Your task to perform on an android device: Open accessibility settings Image 0: 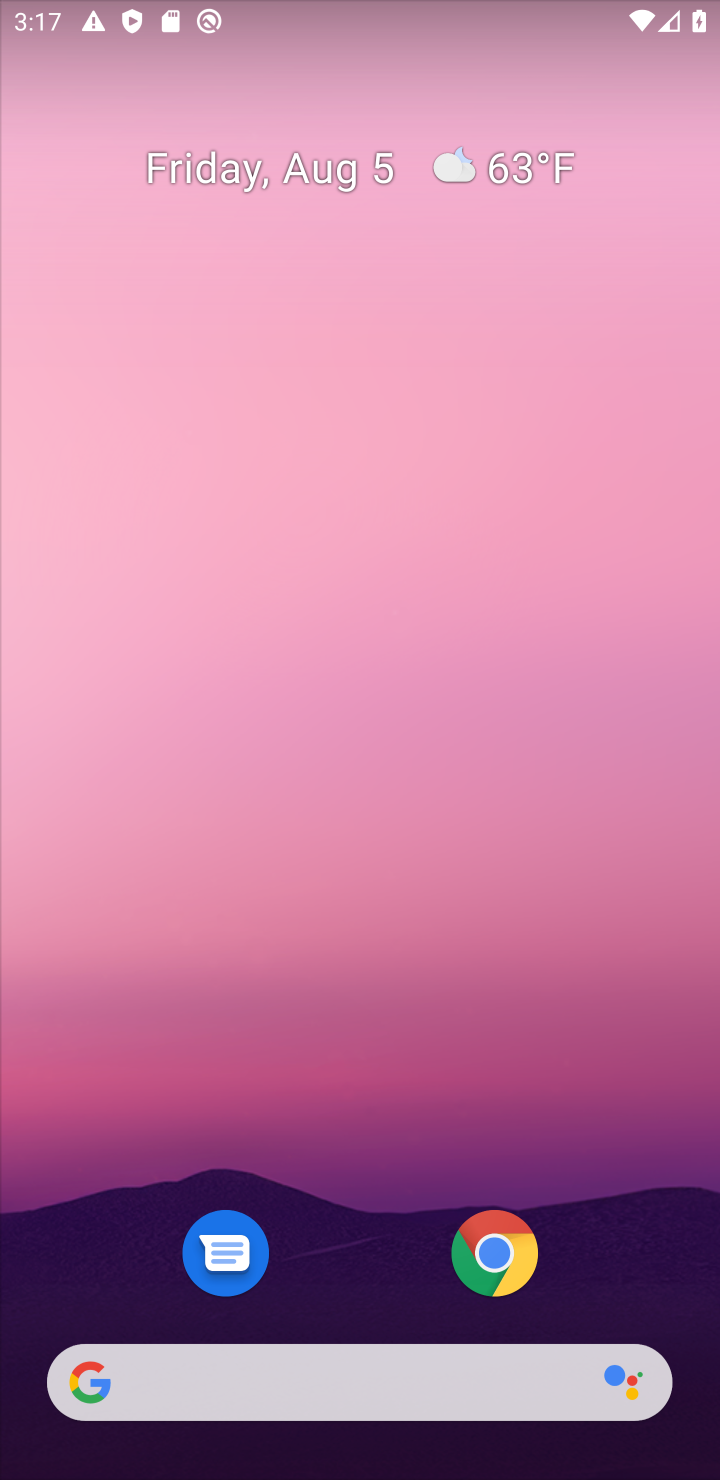
Step 0: drag from (351, 1116) to (399, 210)
Your task to perform on an android device: Open accessibility settings Image 1: 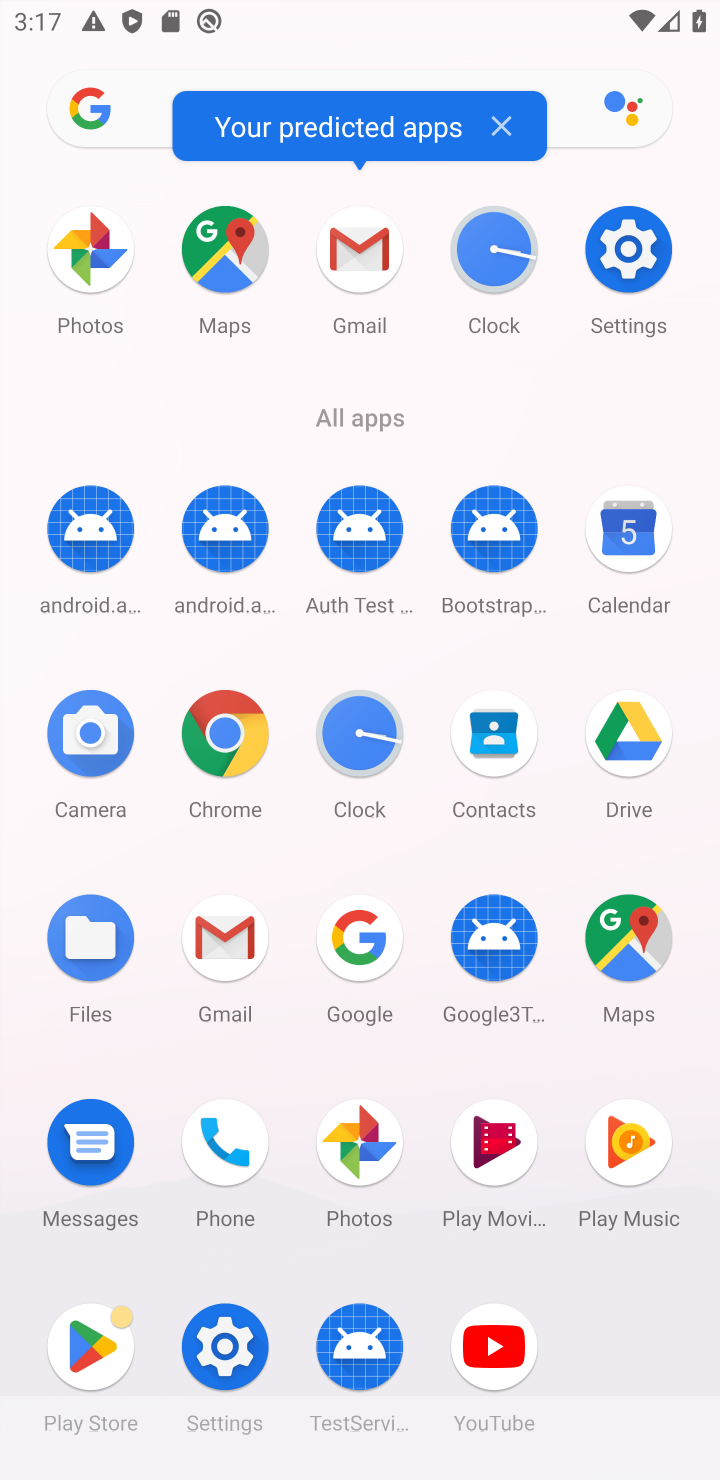
Step 1: click (224, 1335)
Your task to perform on an android device: Open accessibility settings Image 2: 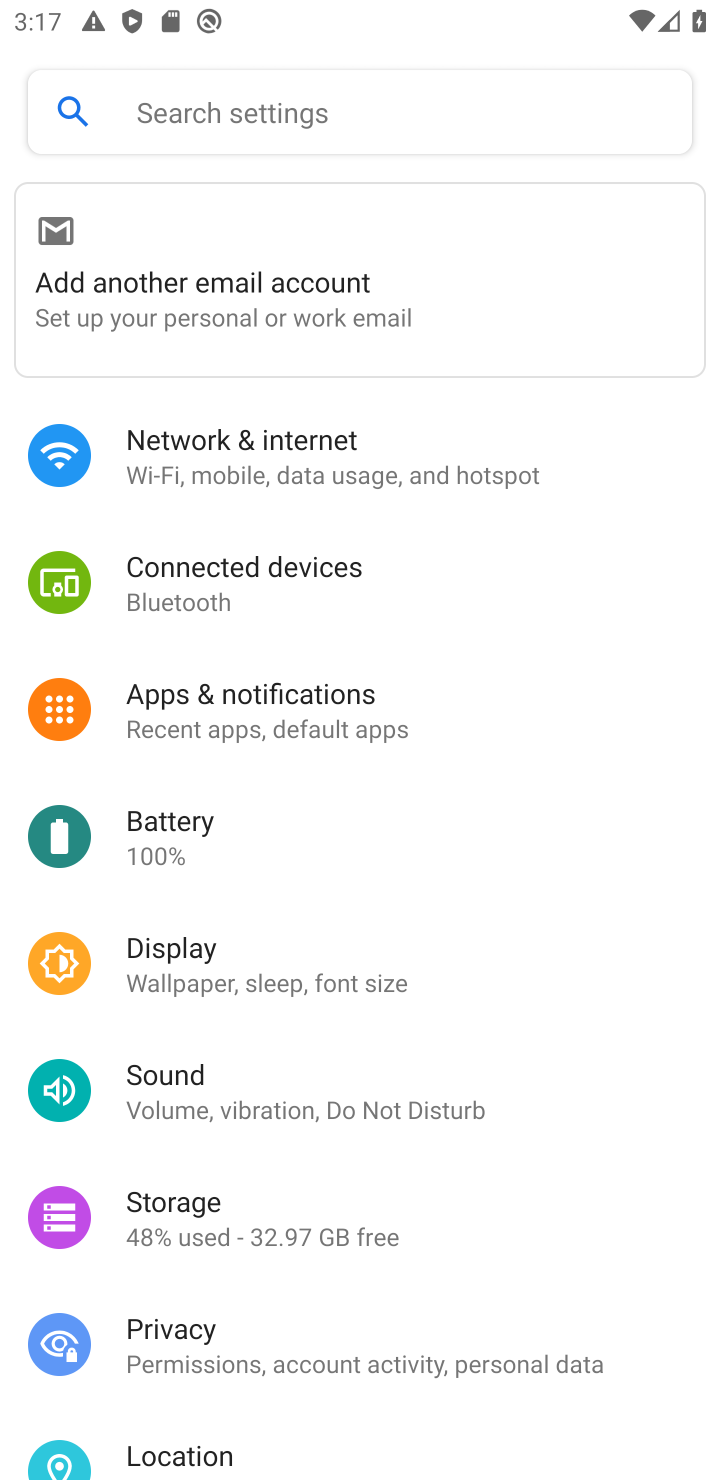
Step 2: drag from (260, 1300) to (291, 128)
Your task to perform on an android device: Open accessibility settings Image 3: 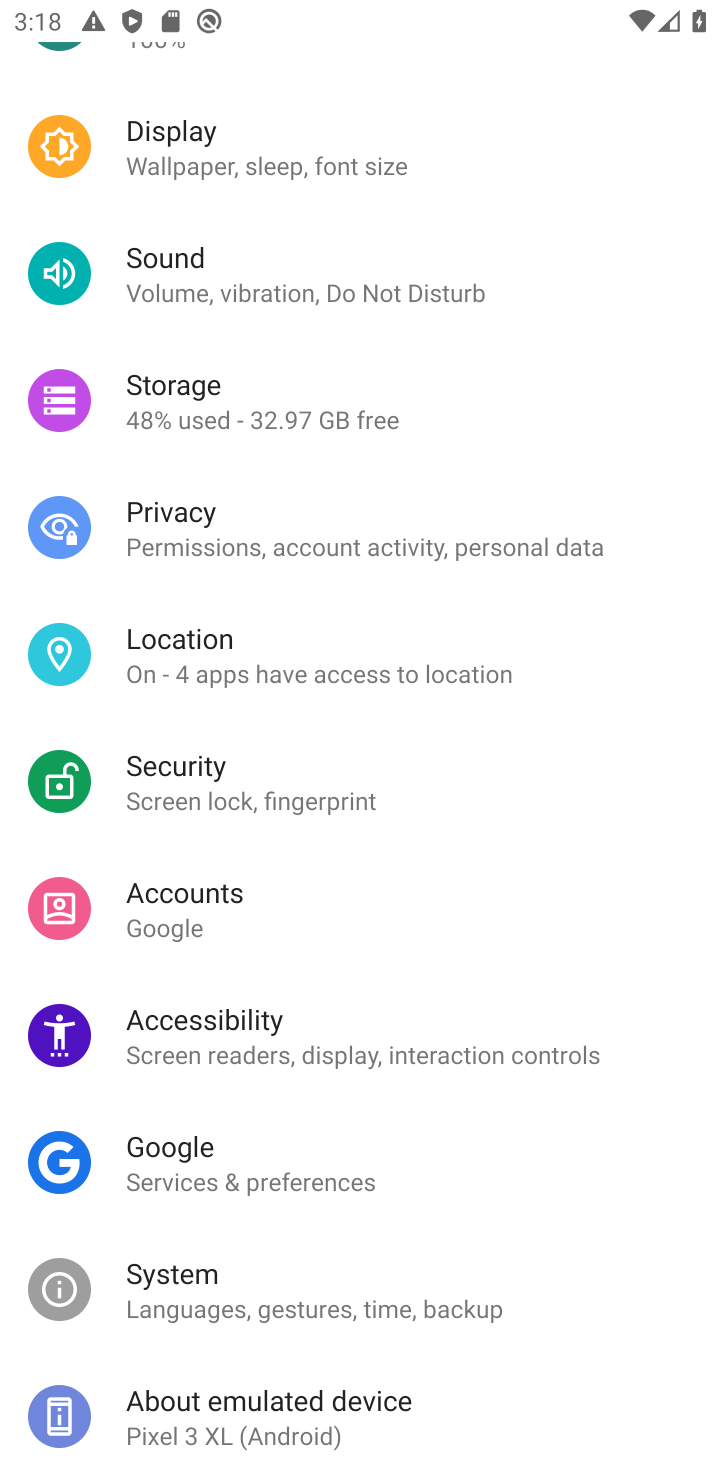
Step 3: click (247, 1027)
Your task to perform on an android device: Open accessibility settings Image 4: 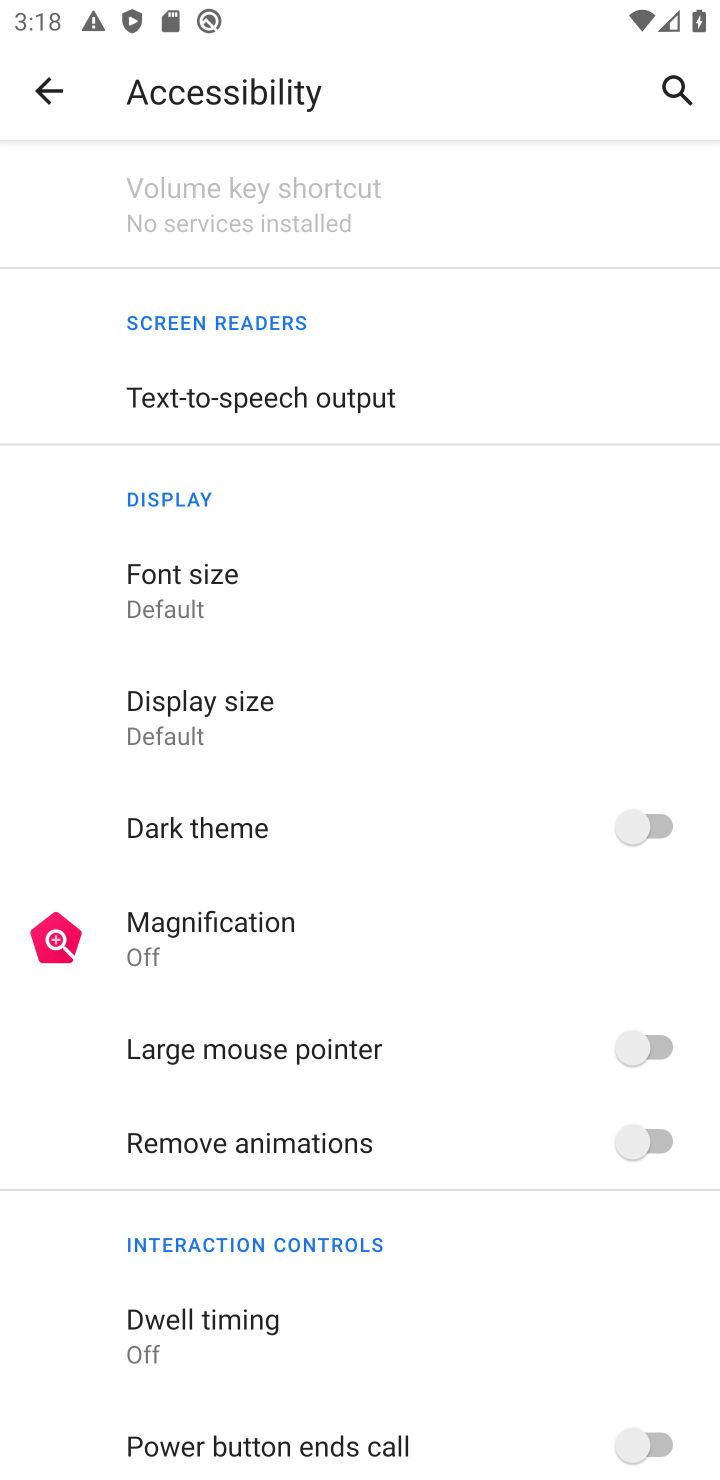
Step 4: task complete